Your task to perform on an android device: Go to network settings Image 0: 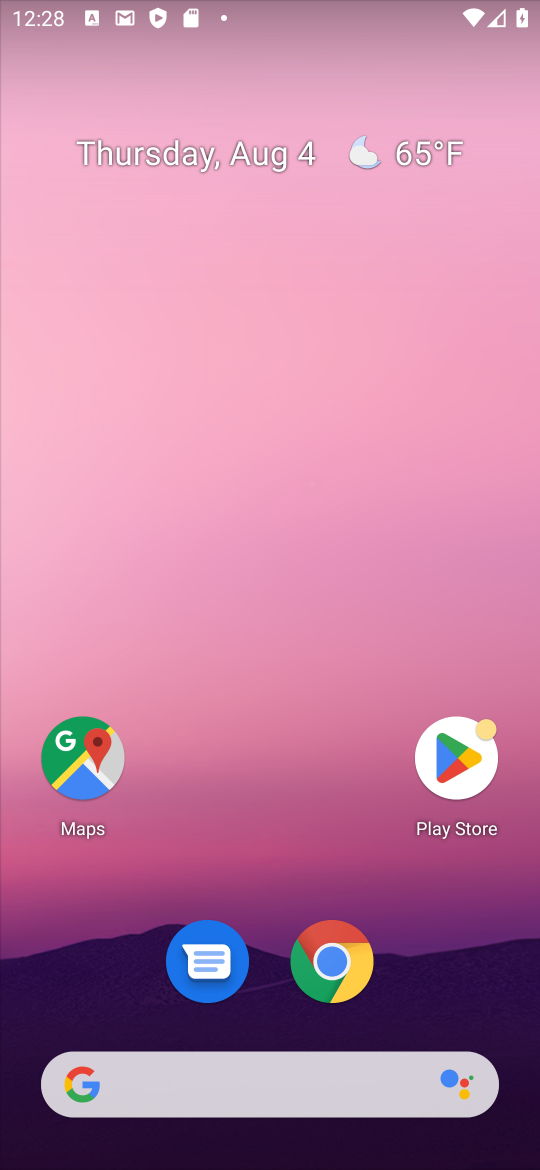
Step 0: drag from (277, 817) to (366, 0)
Your task to perform on an android device: Go to network settings Image 1: 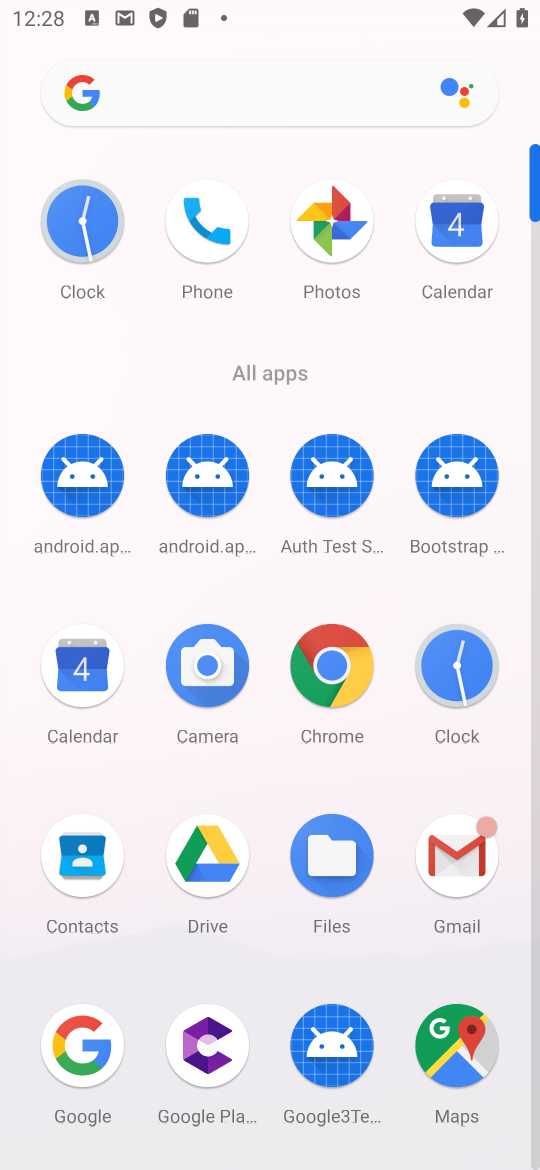
Step 1: drag from (258, 762) to (281, 215)
Your task to perform on an android device: Go to network settings Image 2: 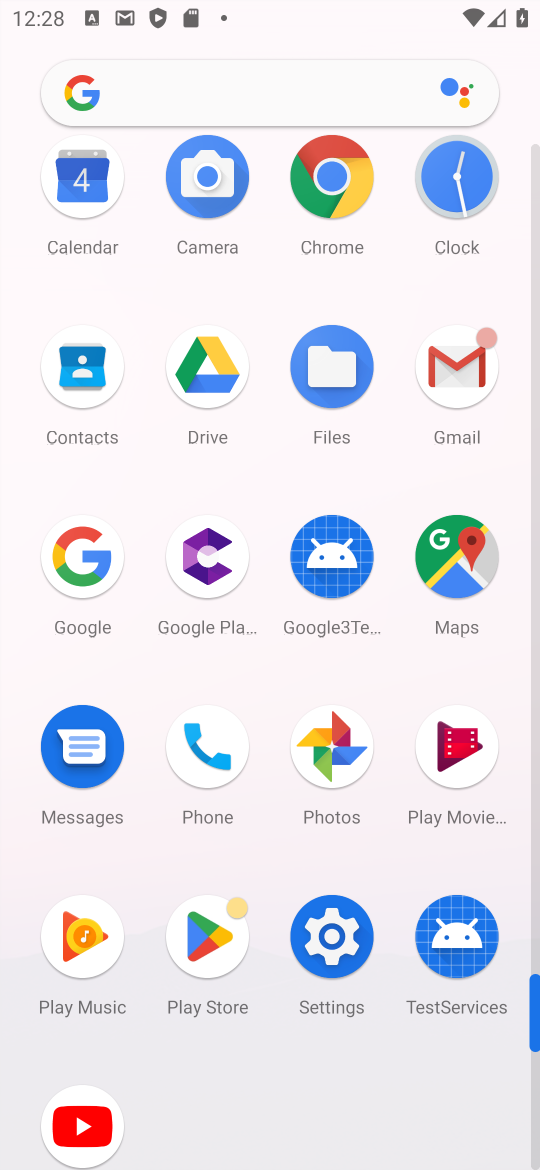
Step 2: click (339, 942)
Your task to perform on an android device: Go to network settings Image 3: 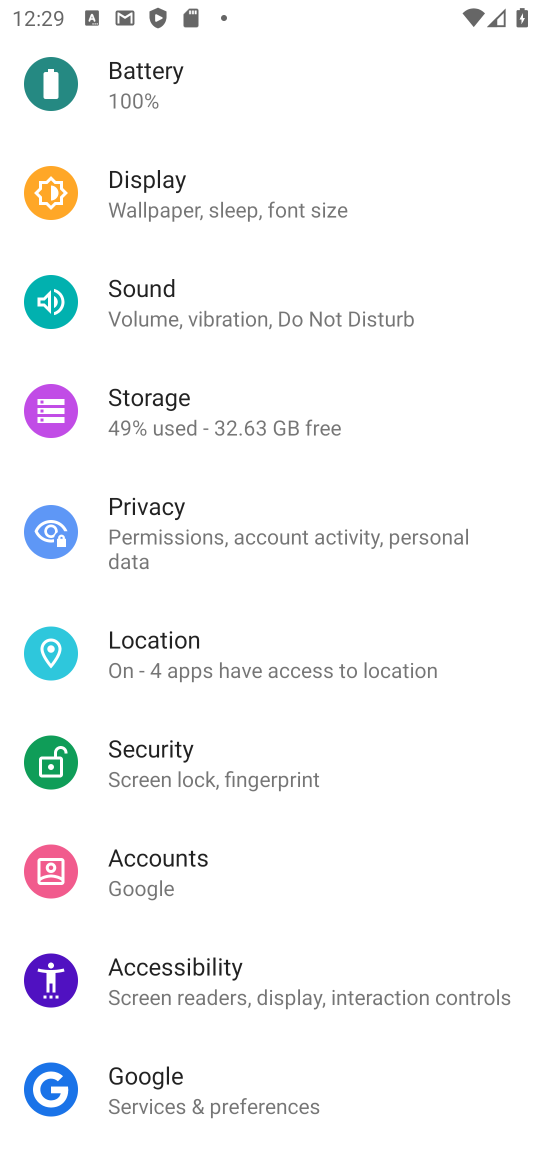
Step 3: drag from (265, 175) to (315, 860)
Your task to perform on an android device: Go to network settings Image 4: 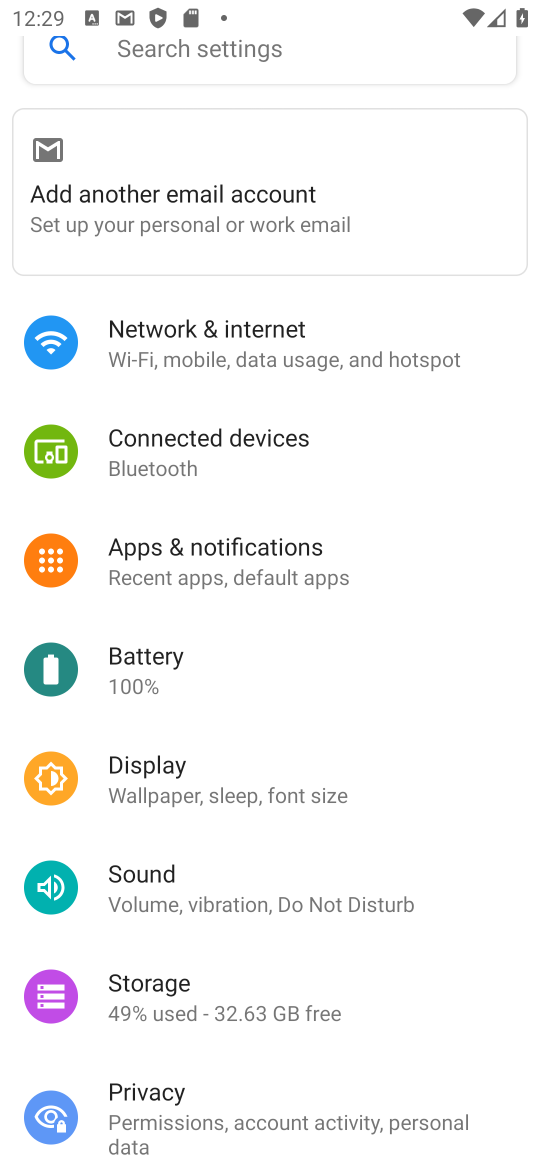
Step 4: click (285, 342)
Your task to perform on an android device: Go to network settings Image 5: 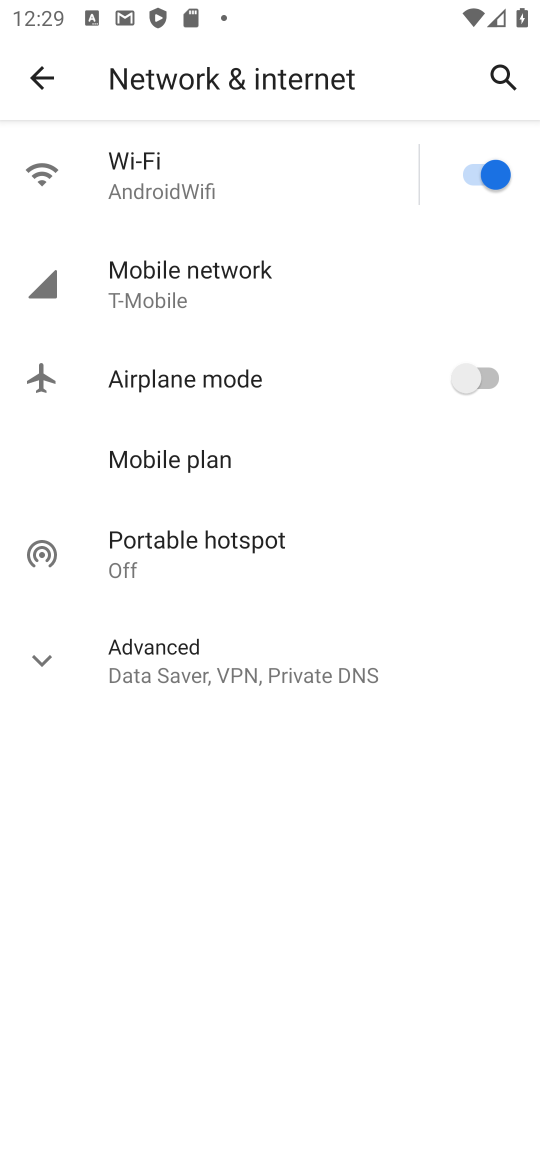
Step 5: task complete